Your task to perform on an android device: open a bookmark in the chrome app Image 0: 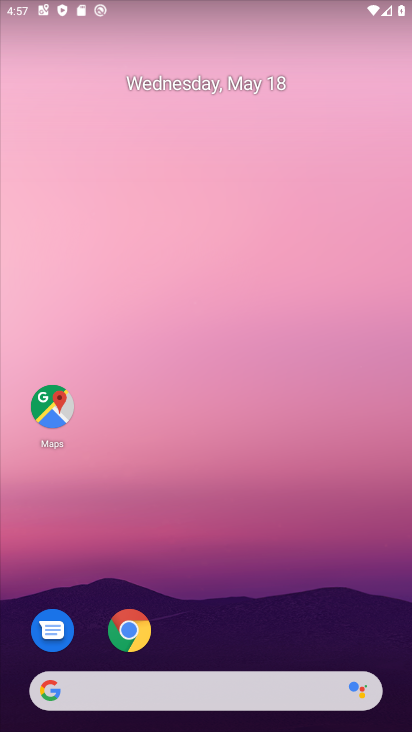
Step 0: click (134, 630)
Your task to perform on an android device: open a bookmark in the chrome app Image 1: 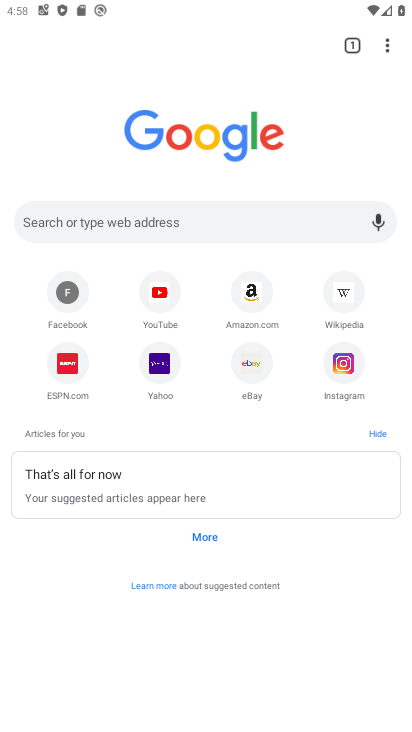
Step 1: click (386, 47)
Your task to perform on an android device: open a bookmark in the chrome app Image 2: 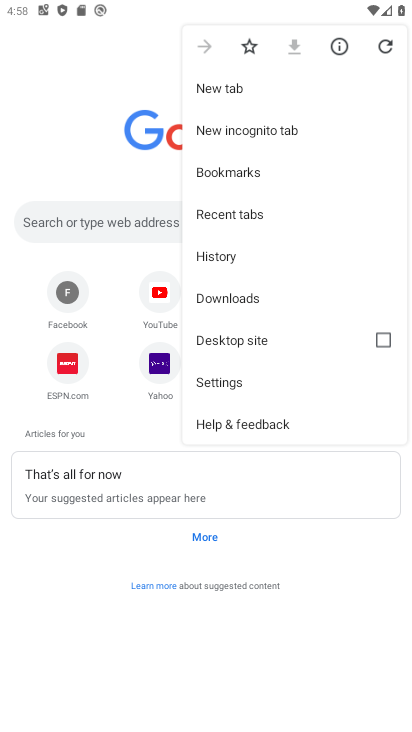
Step 2: click (213, 175)
Your task to perform on an android device: open a bookmark in the chrome app Image 3: 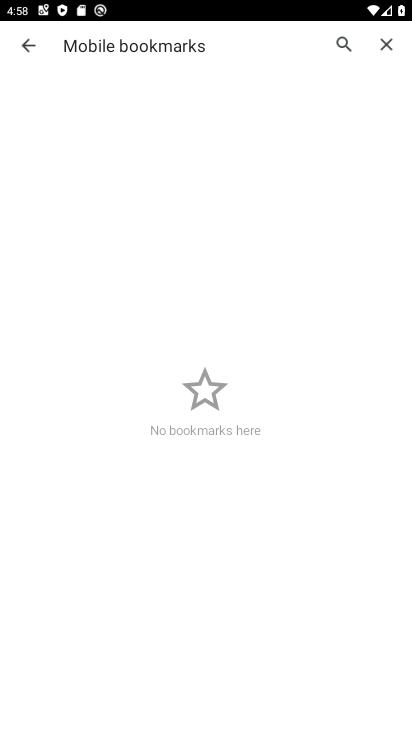
Step 3: task complete